Your task to perform on an android device: Open Chrome and go to settings Image 0: 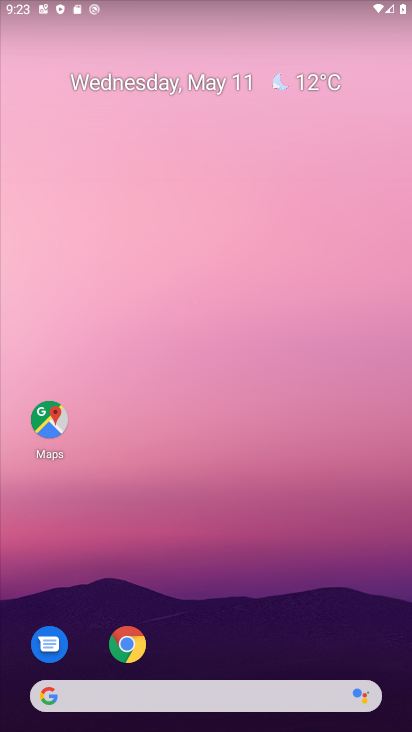
Step 0: click (130, 642)
Your task to perform on an android device: Open Chrome and go to settings Image 1: 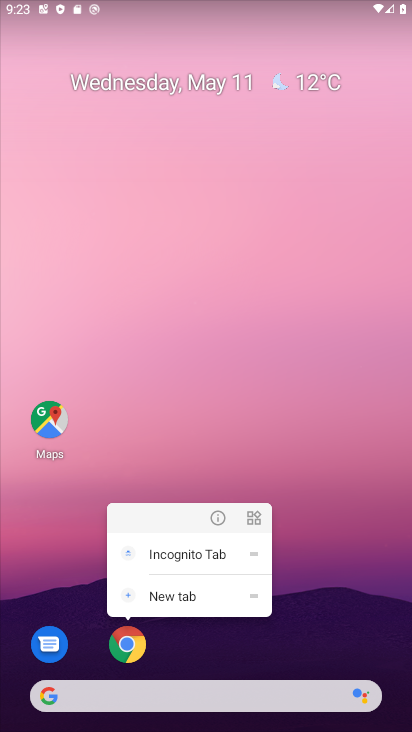
Step 1: click (130, 642)
Your task to perform on an android device: Open Chrome and go to settings Image 2: 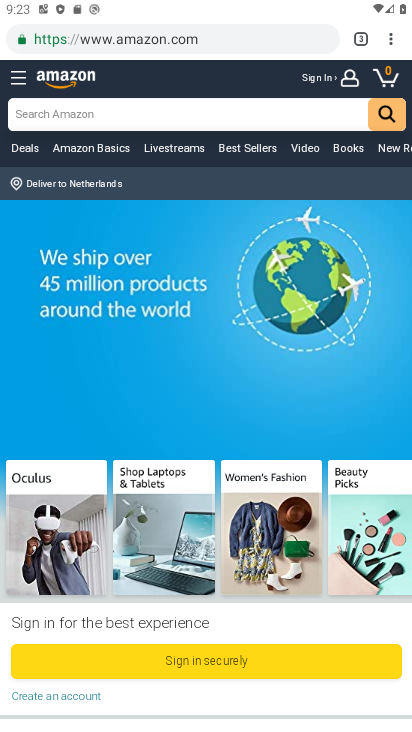
Step 2: click (395, 43)
Your task to perform on an android device: Open Chrome and go to settings Image 3: 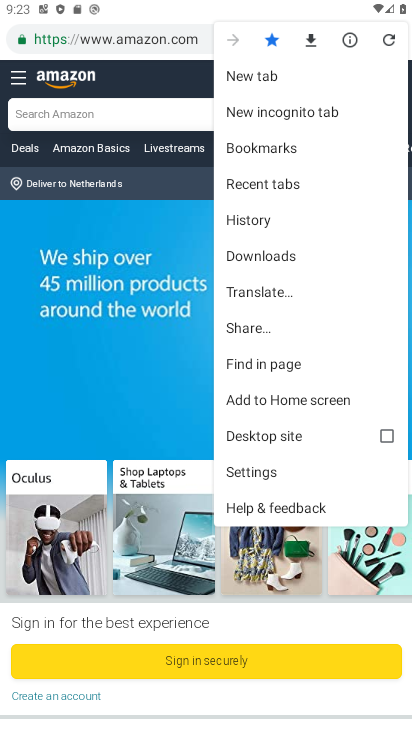
Step 3: click (258, 473)
Your task to perform on an android device: Open Chrome and go to settings Image 4: 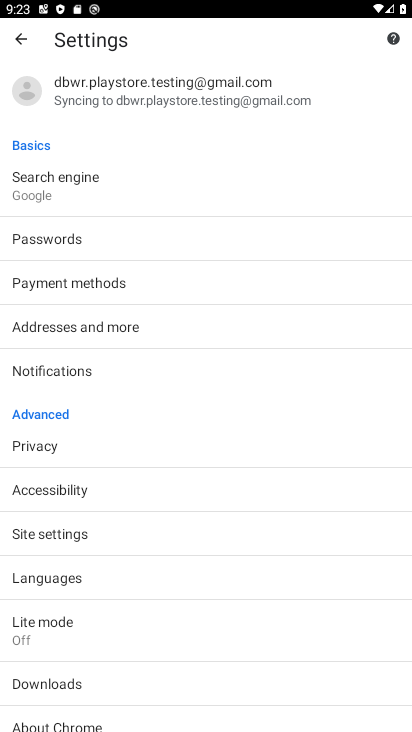
Step 4: task complete